Your task to perform on an android device: Open Google Maps Image 0: 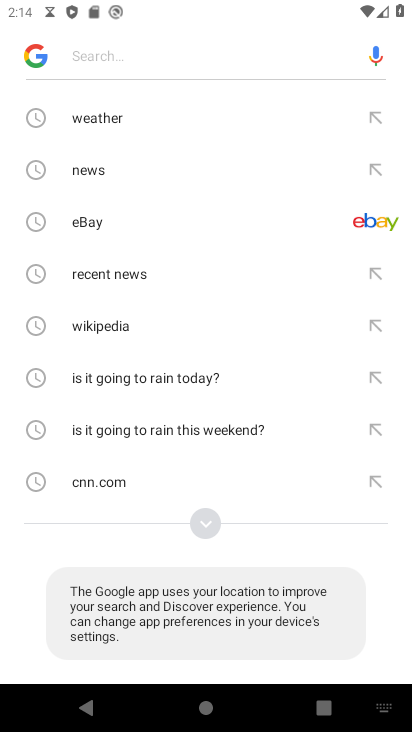
Step 0: press home button
Your task to perform on an android device: Open Google Maps Image 1: 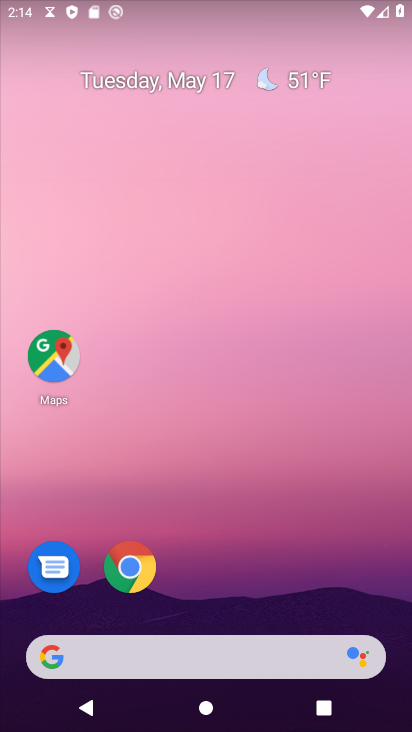
Step 1: click (57, 359)
Your task to perform on an android device: Open Google Maps Image 2: 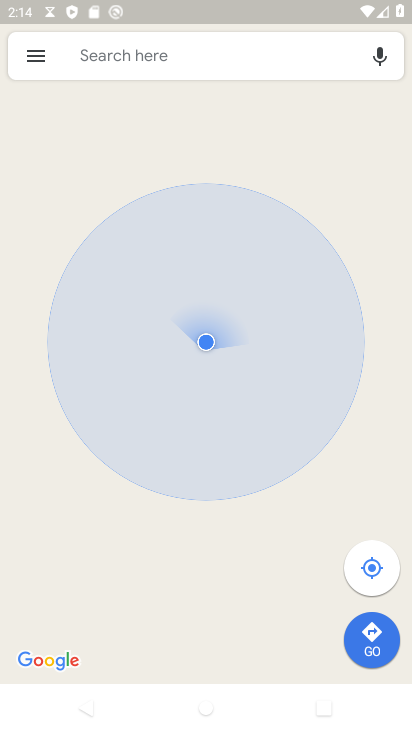
Step 2: task complete